Your task to perform on an android device: turn off location Image 0: 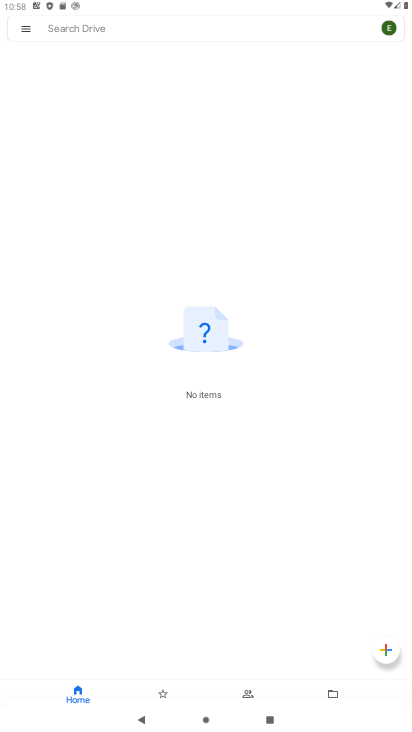
Step 0: press home button
Your task to perform on an android device: turn off location Image 1: 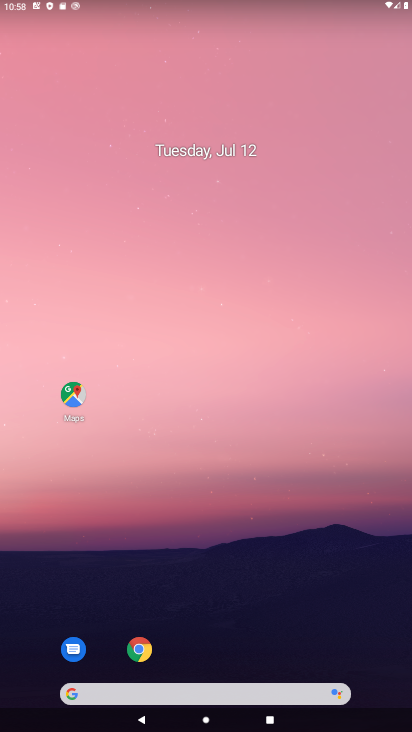
Step 1: drag from (390, 647) to (307, 109)
Your task to perform on an android device: turn off location Image 2: 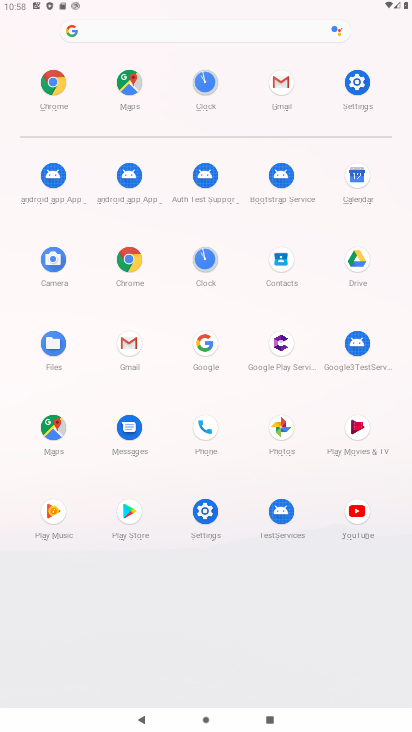
Step 2: click (204, 511)
Your task to perform on an android device: turn off location Image 3: 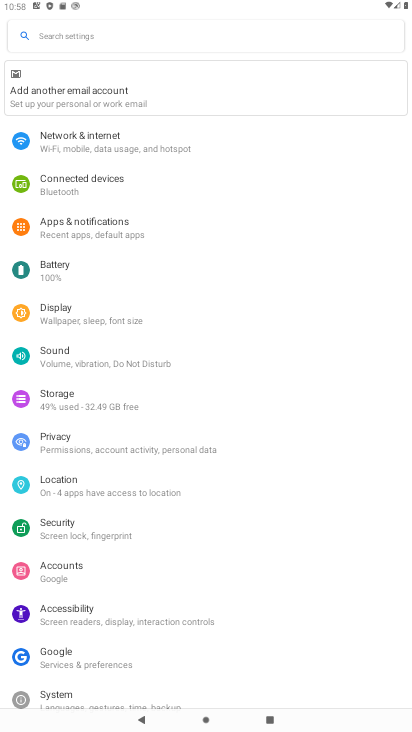
Step 3: click (60, 478)
Your task to perform on an android device: turn off location Image 4: 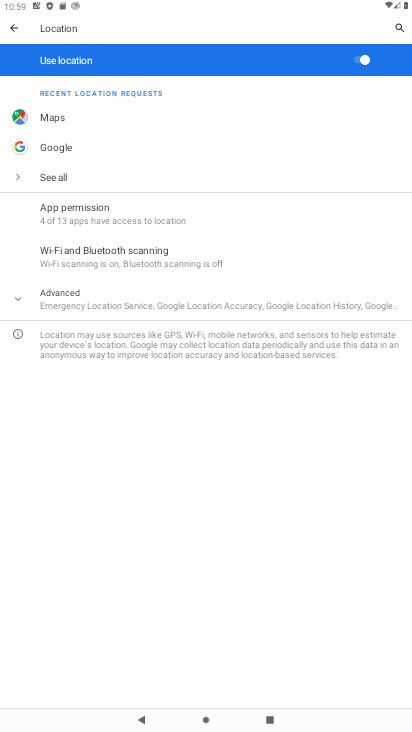
Step 4: click (354, 58)
Your task to perform on an android device: turn off location Image 5: 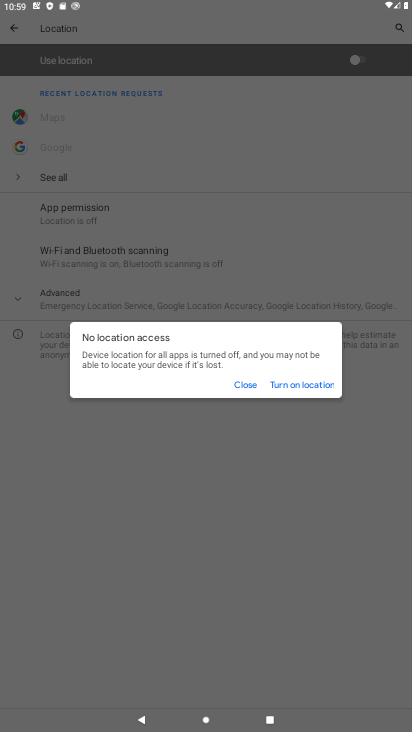
Step 5: task complete